Your task to perform on an android device: Open privacy settings Image 0: 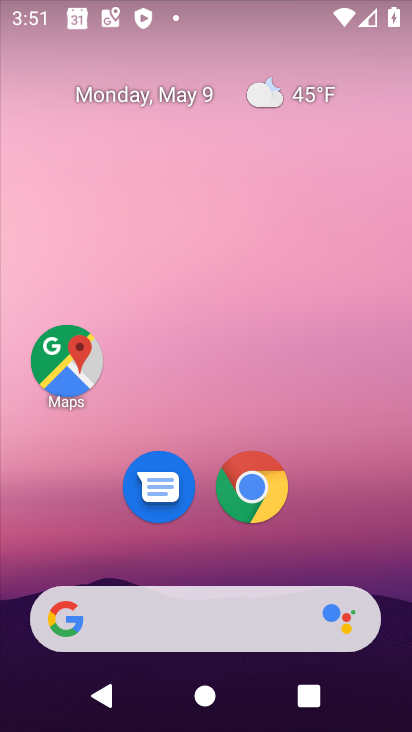
Step 0: drag from (197, 521) to (184, 246)
Your task to perform on an android device: Open privacy settings Image 1: 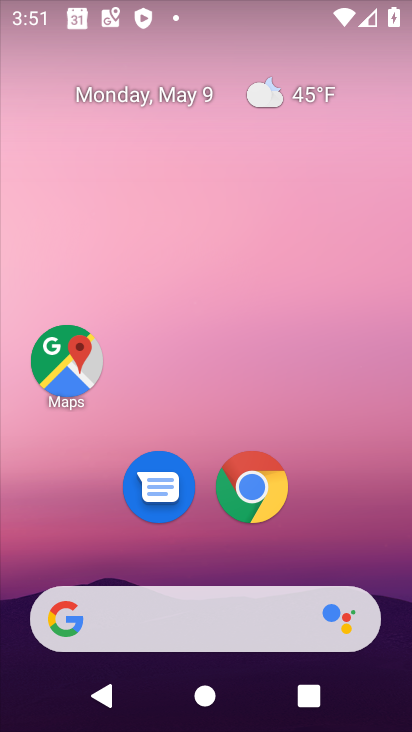
Step 1: drag from (205, 569) to (208, 200)
Your task to perform on an android device: Open privacy settings Image 2: 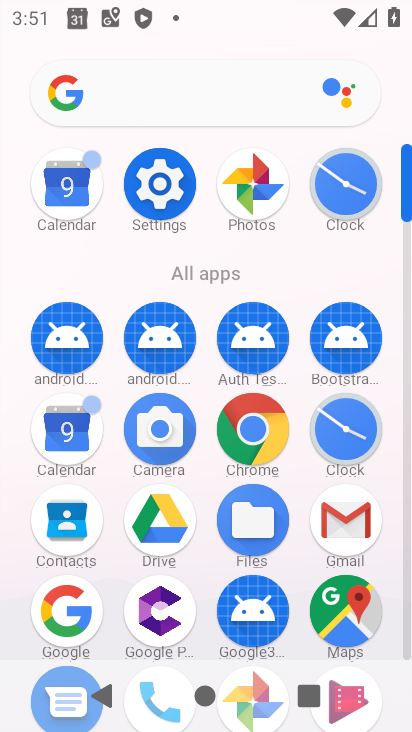
Step 2: click (155, 191)
Your task to perform on an android device: Open privacy settings Image 3: 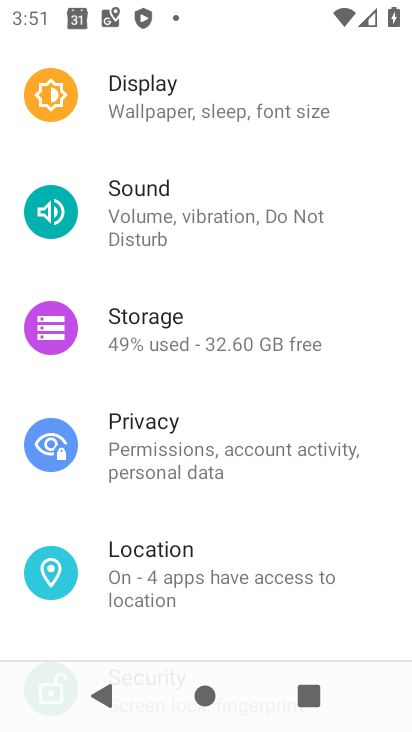
Step 3: drag from (170, 567) to (163, 317)
Your task to perform on an android device: Open privacy settings Image 4: 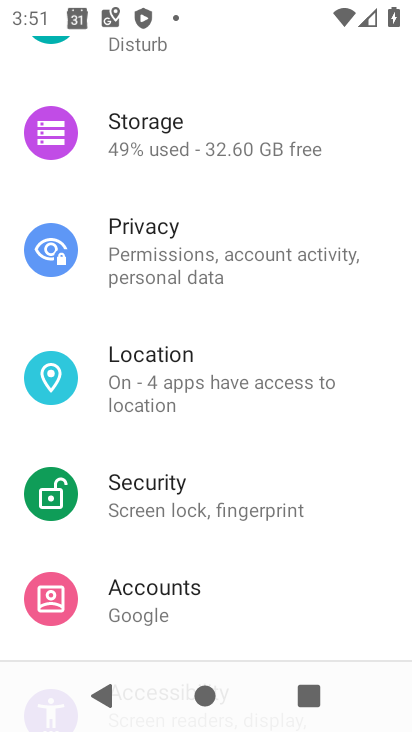
Step 4: click (153, 254)
Your task to perform on an android device: Open privacy settings Image 5: 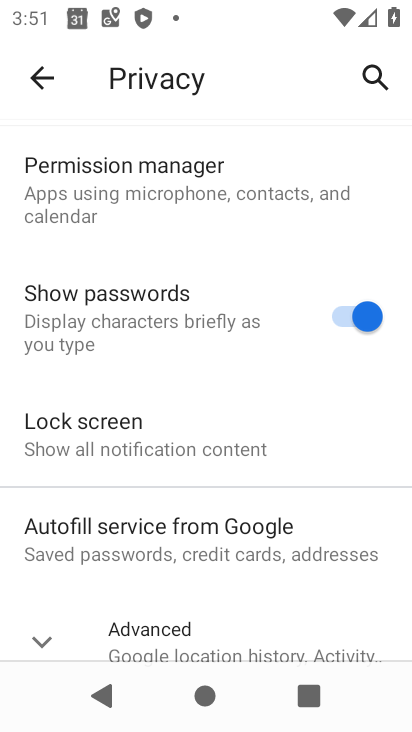
Step 5: drag from (139, 625) to (94, 330)
Your task to perform on an android device: Open privacy settings Image 6: 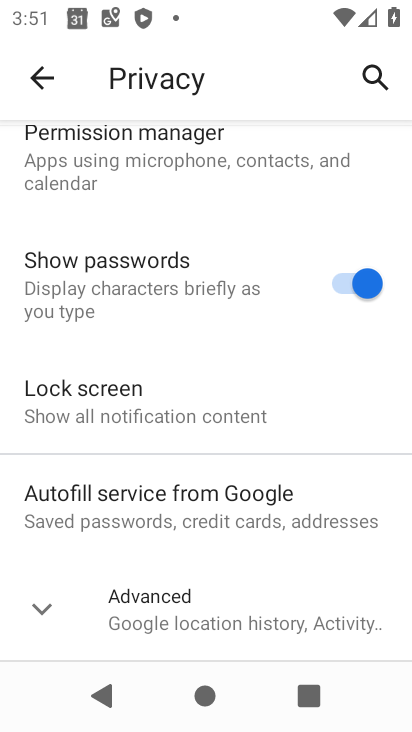
Step 6: click (147, 639)
Your task to perform on an android device: Open privacy settings Image 7: 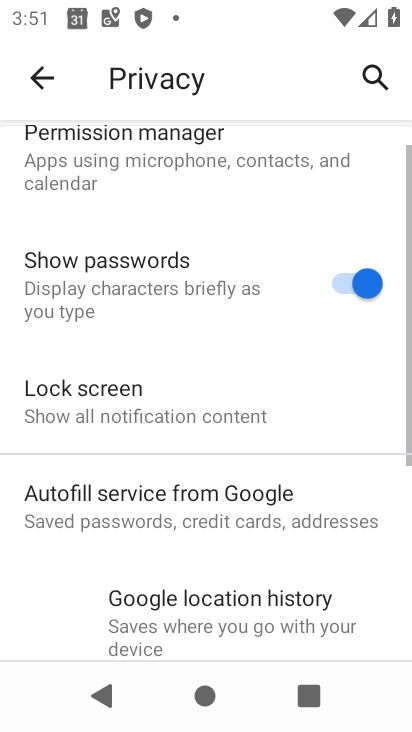
Step 7: task complete